Your task to perform on an android device: Go to Amazon Image 0: 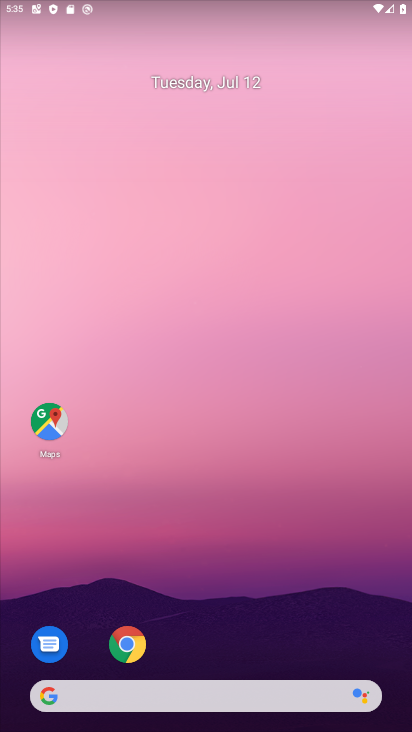
Step 0: press home button
Your task to perform on an android device: Go to Amazon Image 1: 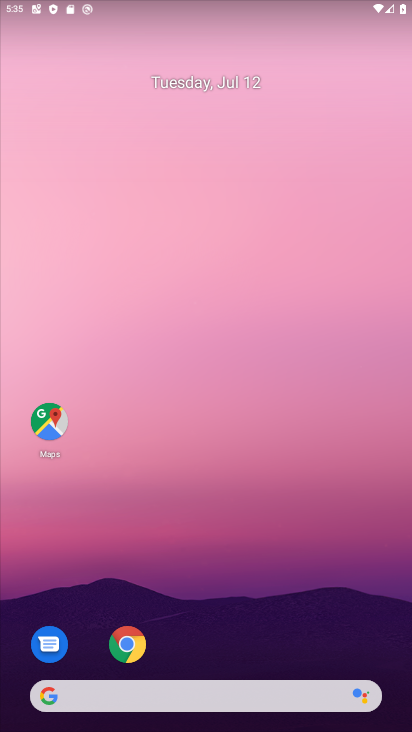
Step 1: click (132, 636)
Your task to perform on an android device: Go to Amazon Image 2: 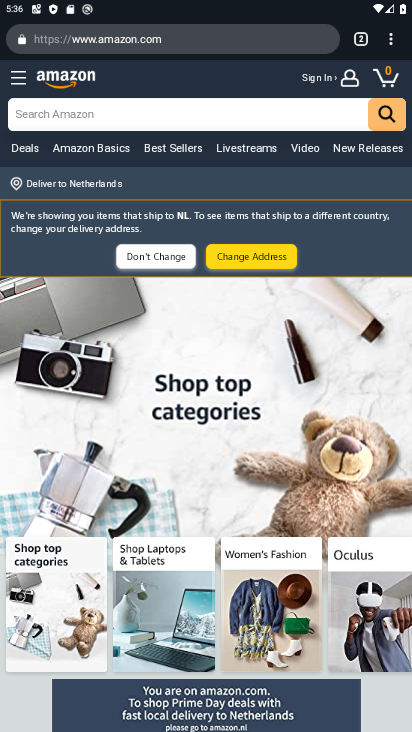
Step 2: task complete